Your task to perform on an android device: turn off translation in the chrome app Image 0: 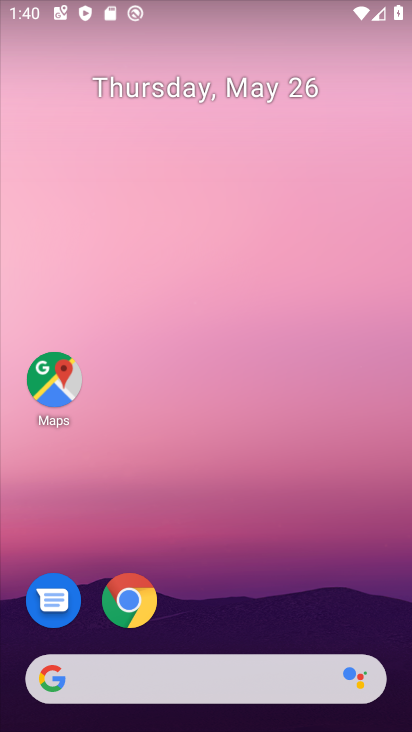
Step 0: click (149, 594)
Your task to perform on an android device: turn off translation in the chrome app Image 1: 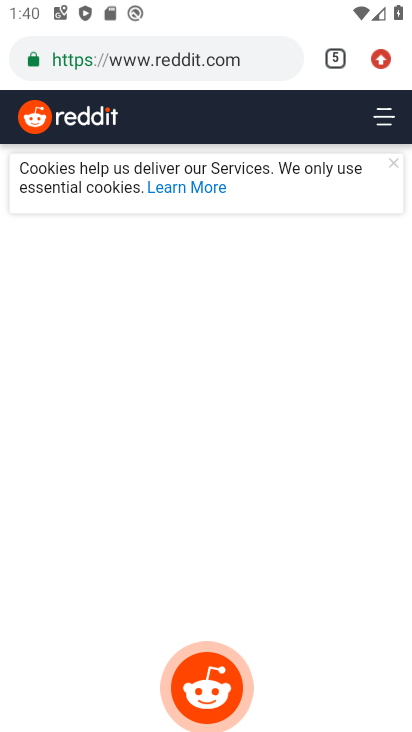
Step 1: click (351, 52)
Your task to perform on an android device: turn off translation in the chrome app Image 2: 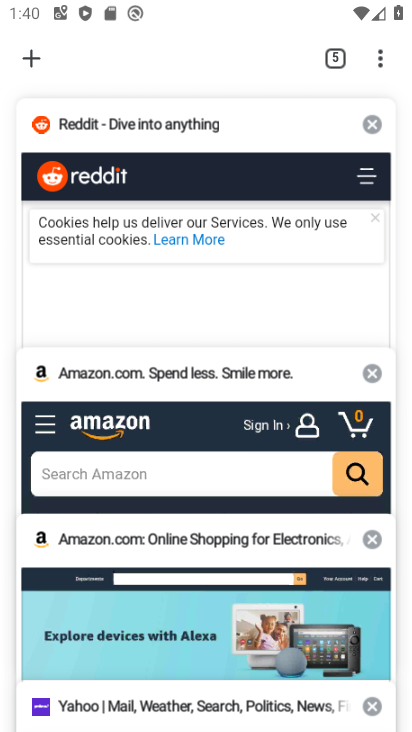
Step 2: click (27, 58)
Your task to perform on an android device: turn off translation in the chrome app Image 3: 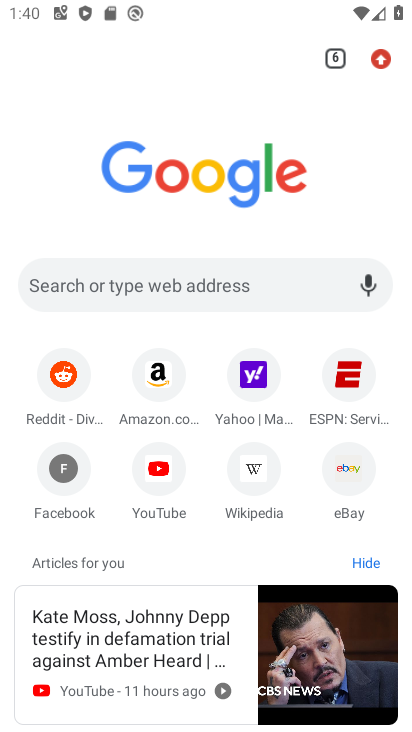
Step 3: click (380, 52)
Your task to perform on an android device: turn off translation in the chrome app Image 4: 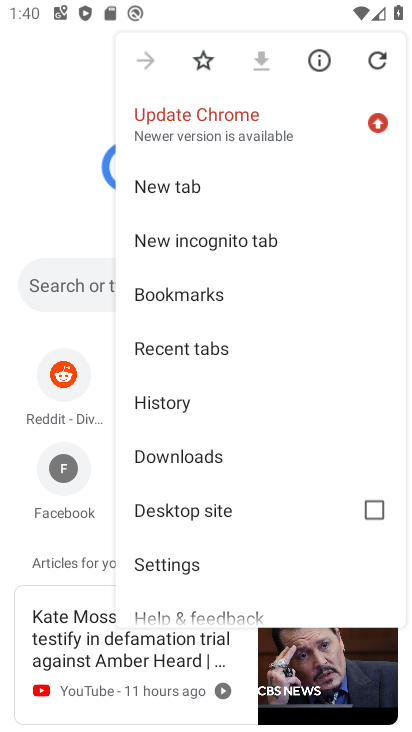
Step 4: drag from (210, 560) to (255, 265)
Your task to perform on an android device: turn off translation in the chrome app Image 5: 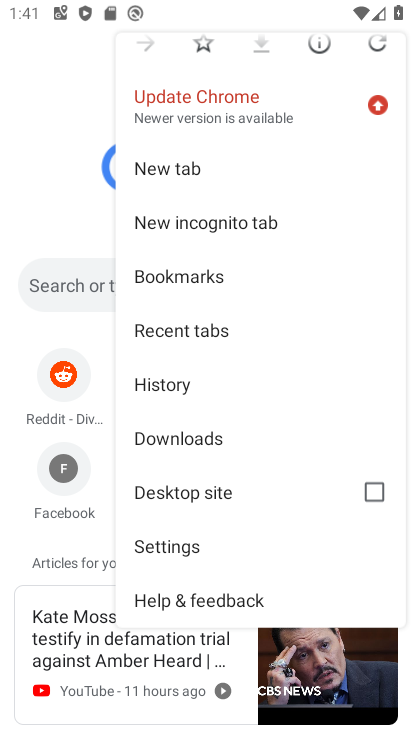
Step 5: click (162, 542)
Your task to perform on an android device: turn off translation in the chrome app Image 6: 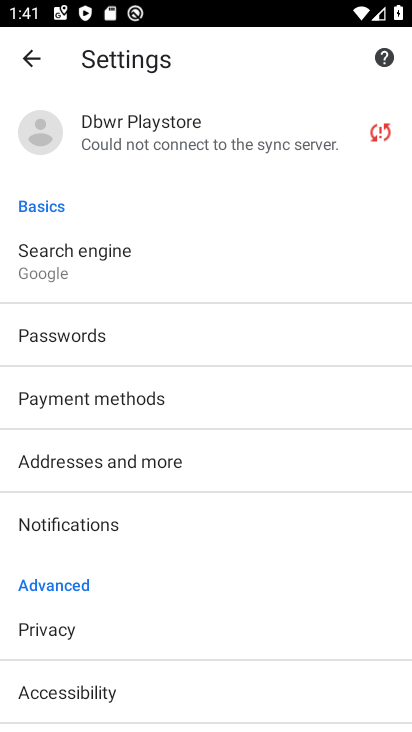
Step 6: drag from (142, 626) to (193, 243)
Your task to perform on an android device: turn off translation in the chrome app Image 7: 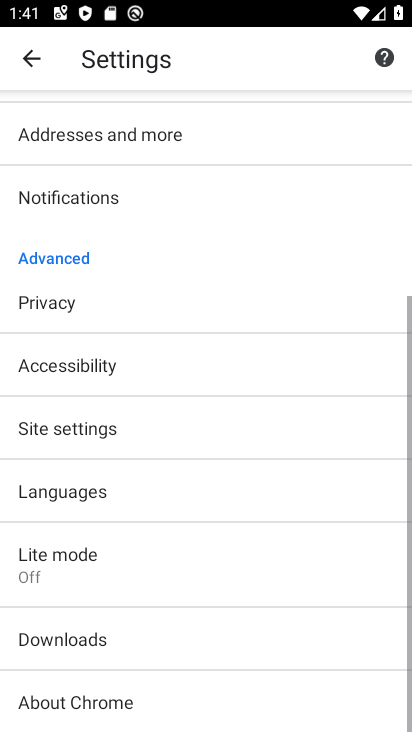
Step 7: click (46, 475)
Your task to perform on an android device: turn off translation in the chrome app Image 8: 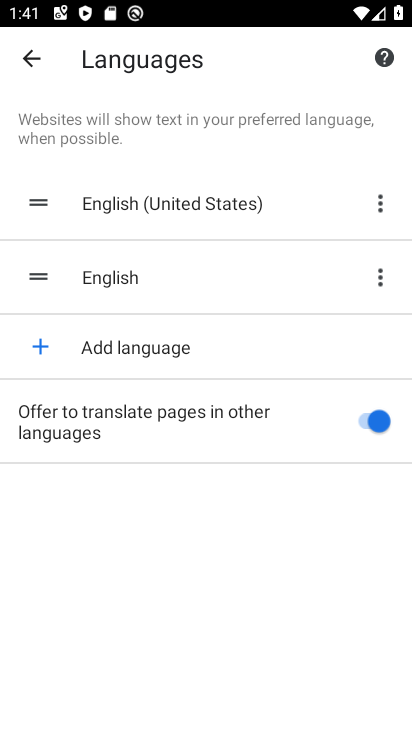
Step 8: click (383, 421)
Your task to perform on an android device: turn off translation in the chrome app Image 9: 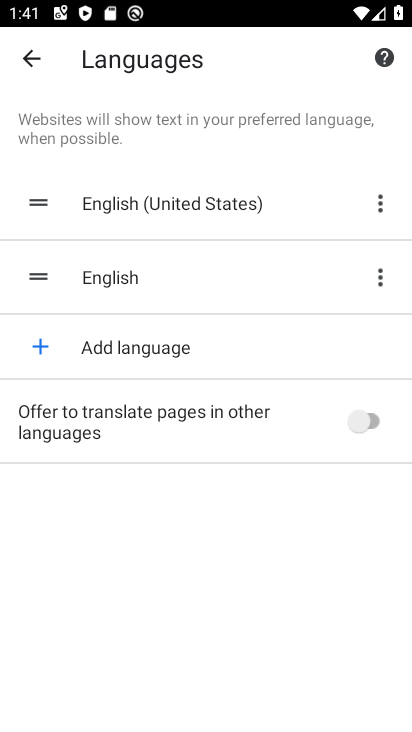
Step 9: task complete